Your task to perform on an android device: Go to Amazon Image 0: 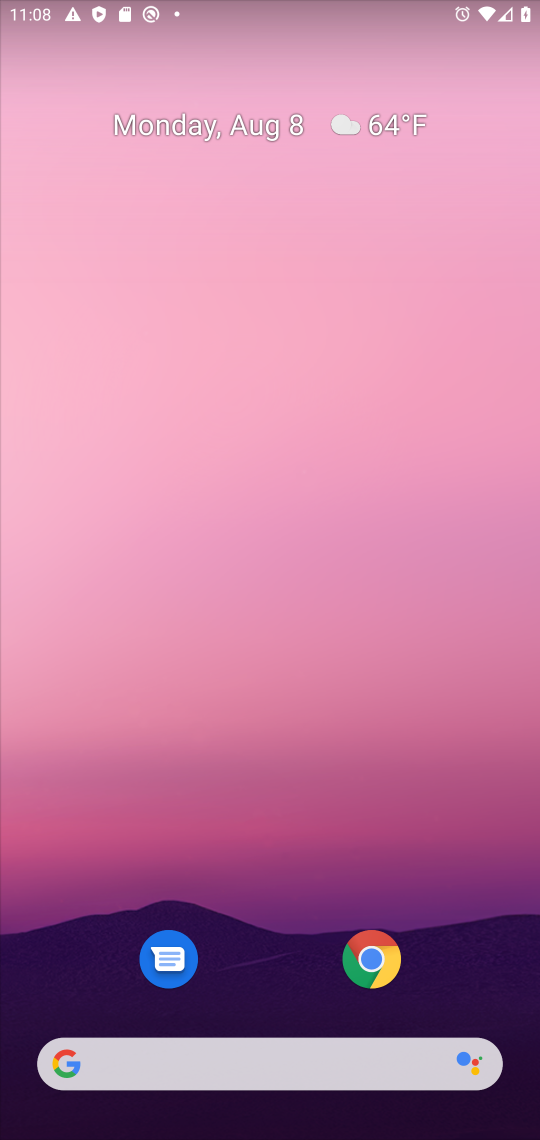
Step 0: drag from (491, 970) to (378, 113)
Your task to perform on an android device: Go to Amazon Image 1: 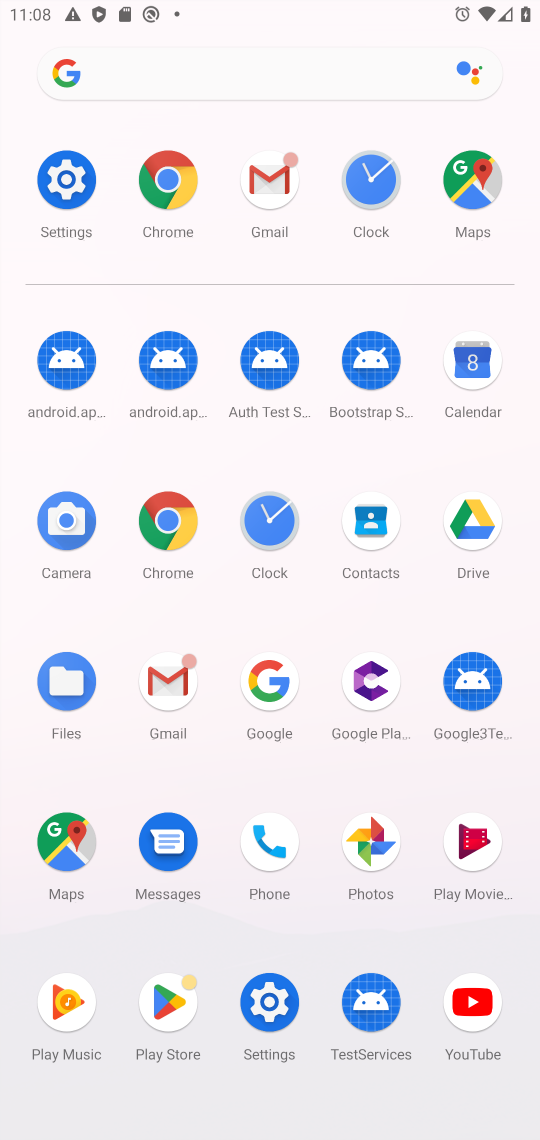
Step 1: click (151, 192)
Your task to perform on an android device: Go to Amazon Image 2: 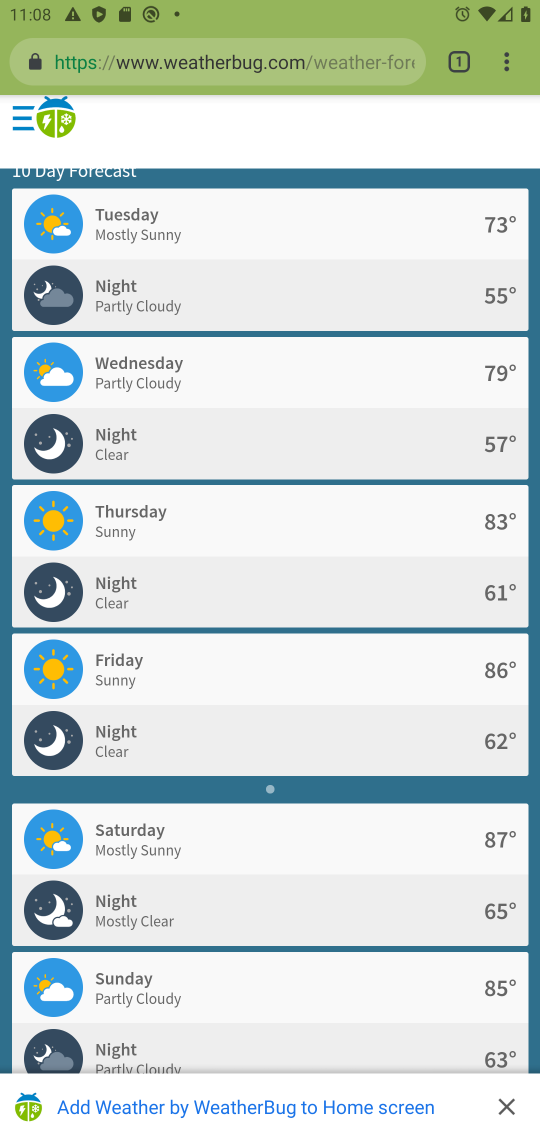
Step 2: click (457, 59)
Your task to perform on an android device: Go to Amazon Image 3: 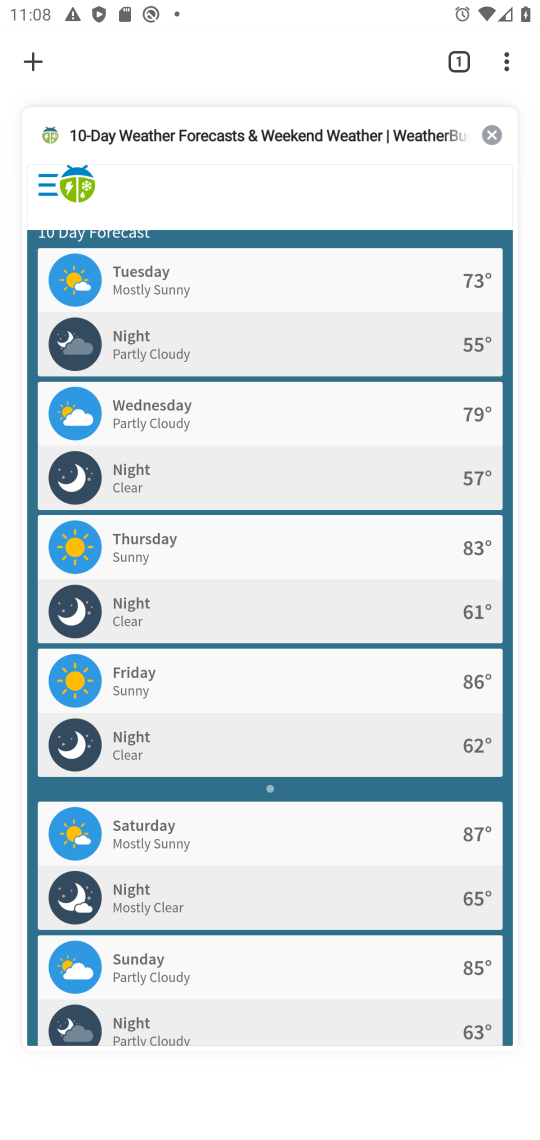
Step 3: click (36, 83)
Your task to perform on an android device: Go to Amazon Image 4: 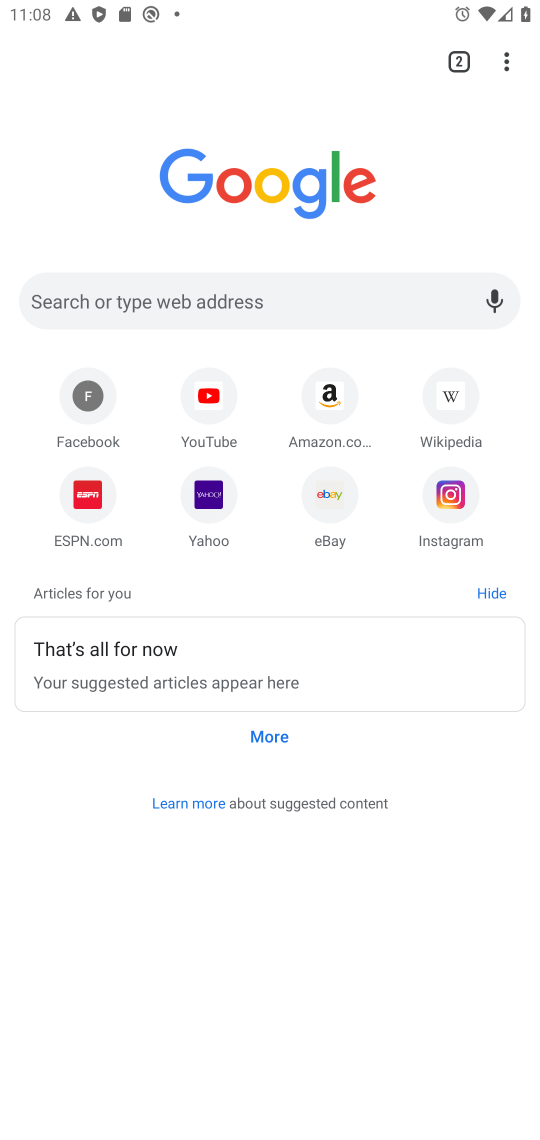
Step 4: click (316, 406)
Your task to perform on an android device: Go to Amazon Image 5: 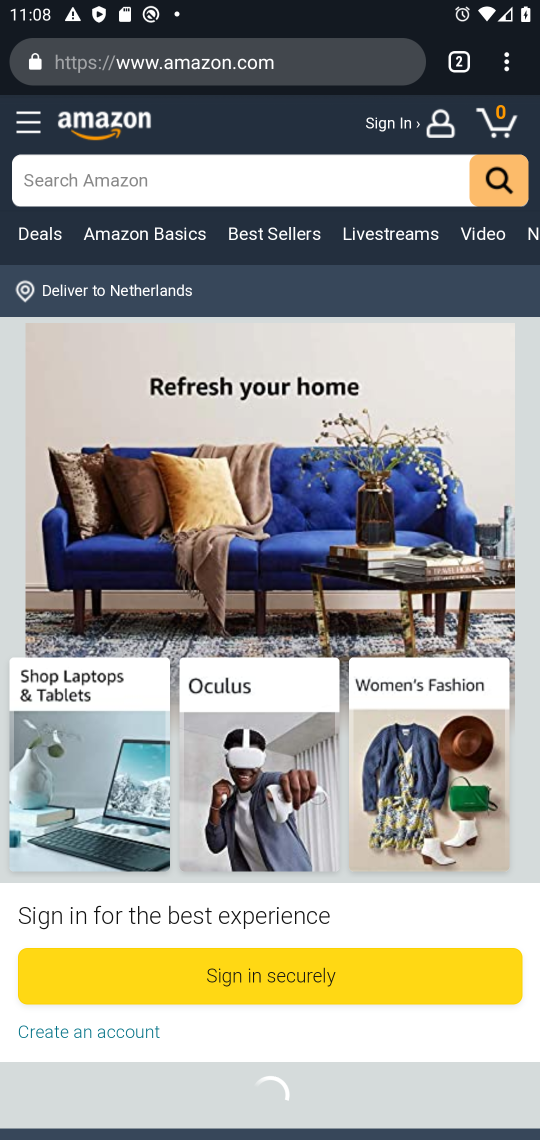
Step 5: task complete